Your task to perform on an android device: turn notification dots on Image 0: 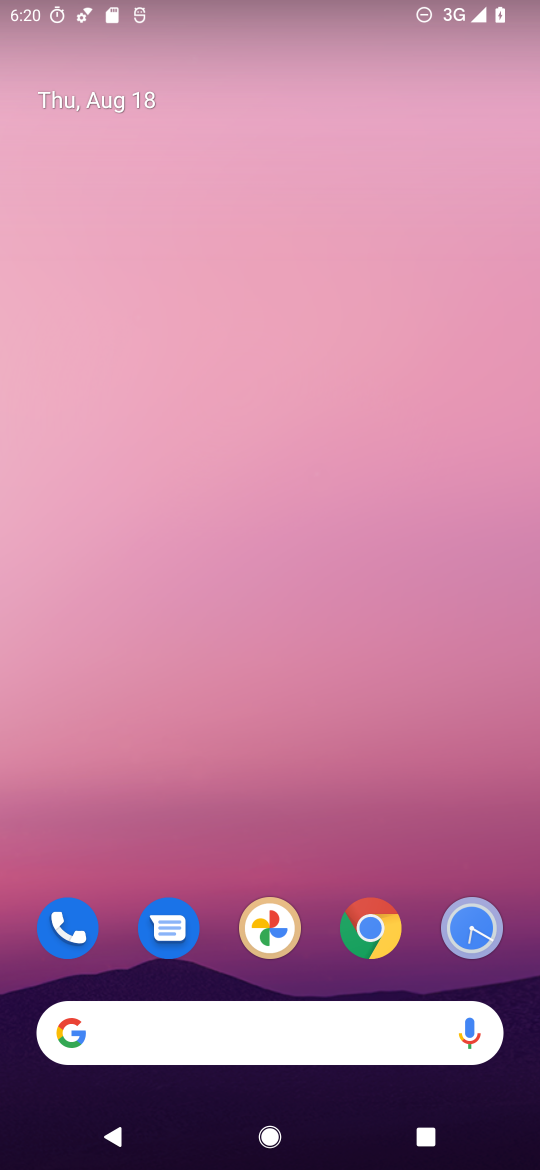
Step 0: drag from (213, 854) to (290, 217)
Your task to perform on an android device: turn notification dots on Image 1: 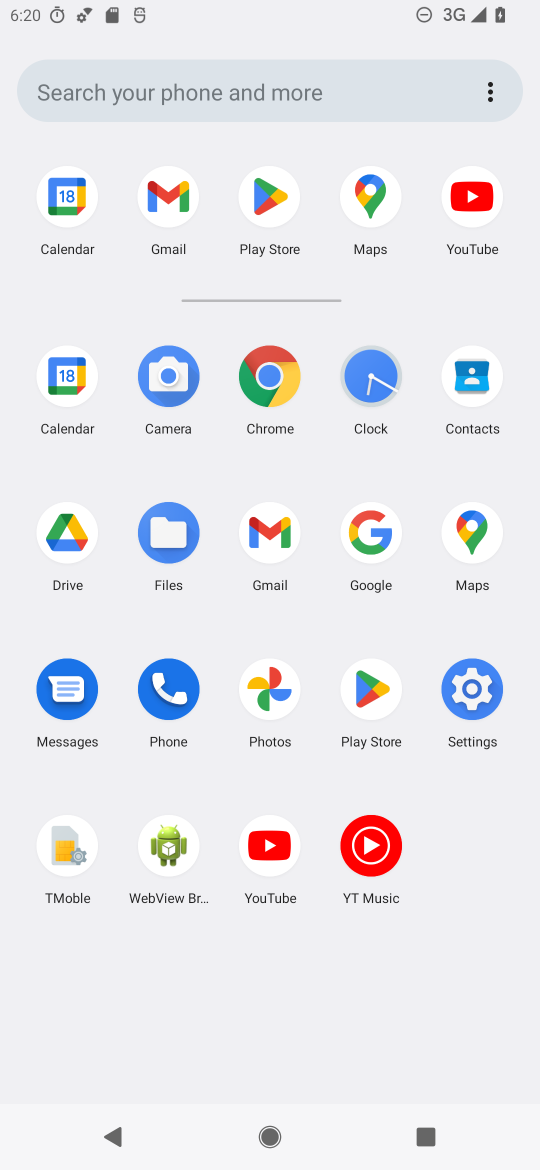
Step 1: click (474, 696)
Your task to perform on an android device: turn notification dots on Image 2: 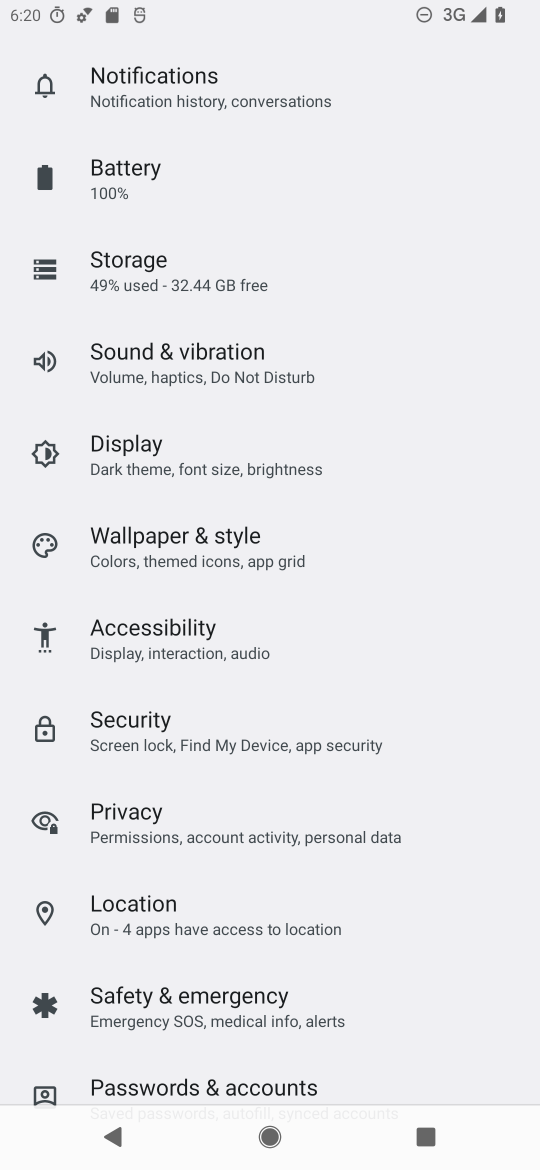
Step 2: click (217, 97)
Your task to perform on an android device: turn notification dots on Image 3: 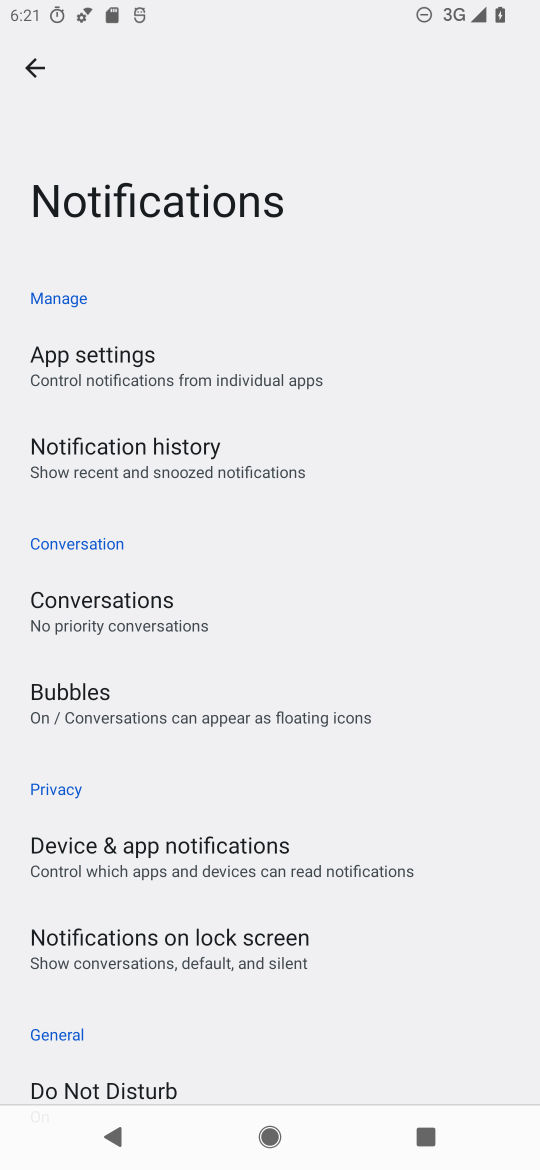
Step 3: task complete